Your task to perform on an android device: Open Yahoo.com Image 0: 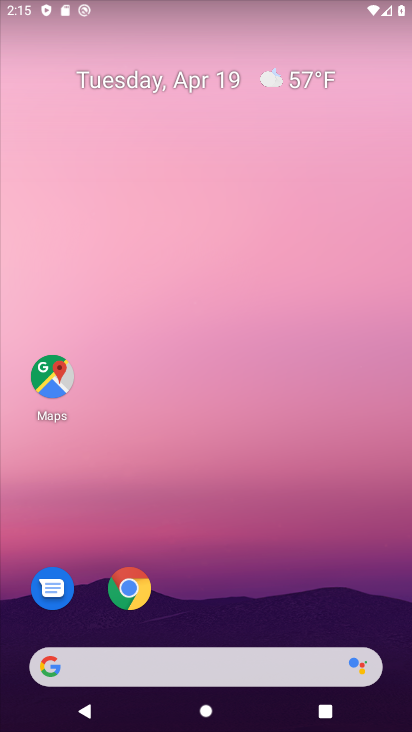
Step 0: click (130, 583)
Your task to perform on an android device: Open Yahoo.com Image 1: 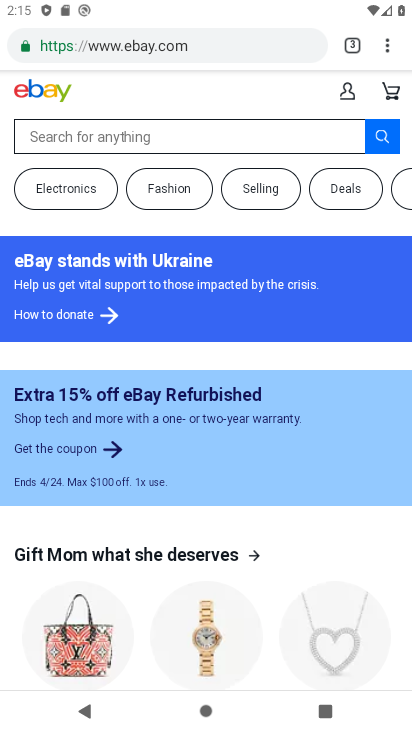
Step 1: click (390, 42)
Your task to perform on an android device: Open Yahoo.com Image 2: 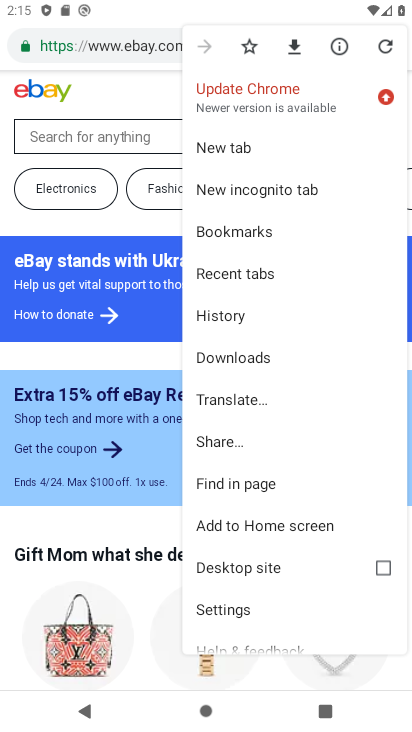
Step 2: click (295, 153)
Your task to perform on an android device: Open Yahoo.com Image 3: 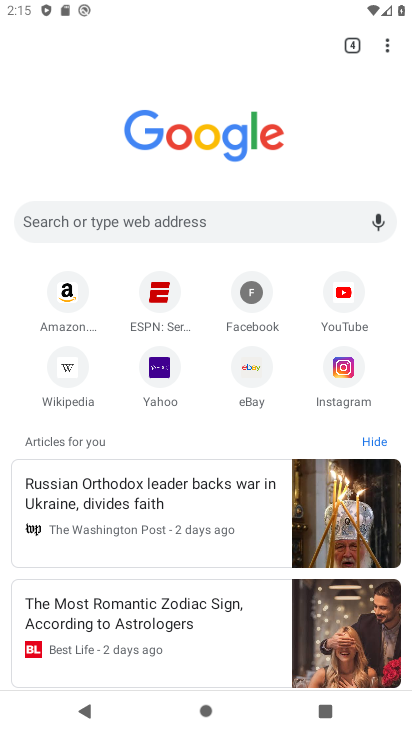
Step 3: click (270, 231)
Your task to perform on an android device: Open Yahoo.com Image 4: 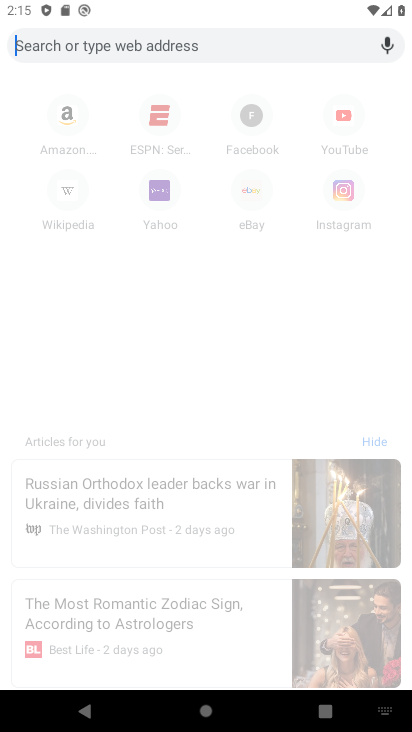
Step 4: type "yahoo.com"
Your task to perform on an android device: Open Yahoo.com Image 5: 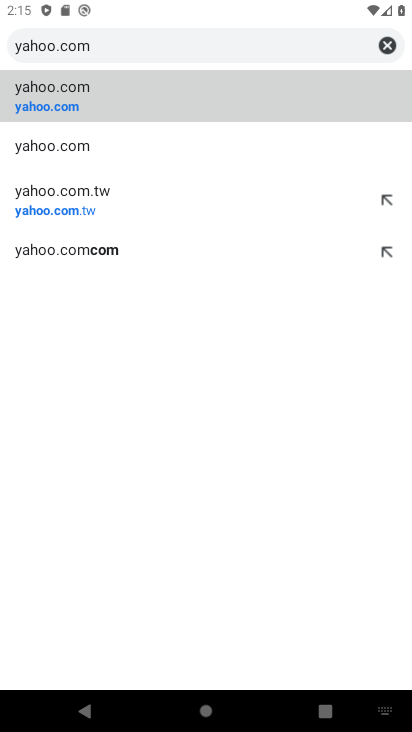
Step 5: click (68, 100)
Your task to perform on an android device: Open Yahoo.com Image 6: 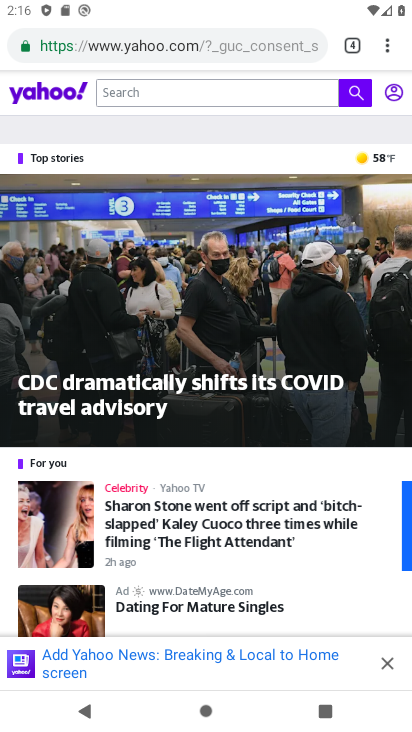
Step 6: task complete